Your task to perform on an android device: Open network settings Image 0: 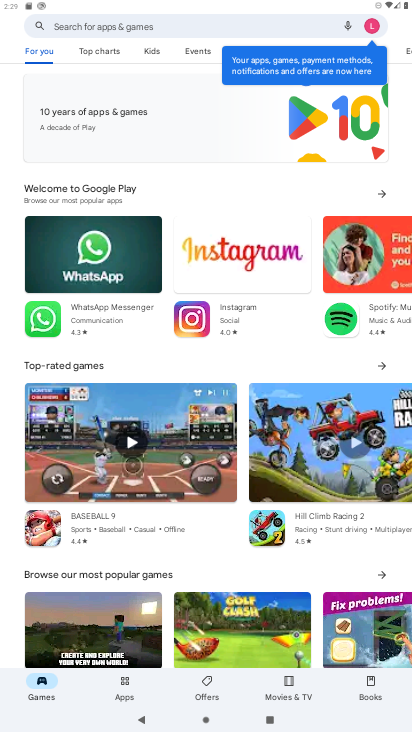
Step 0: press home button
Your task to perform on an android device: Open network settings Image 1: 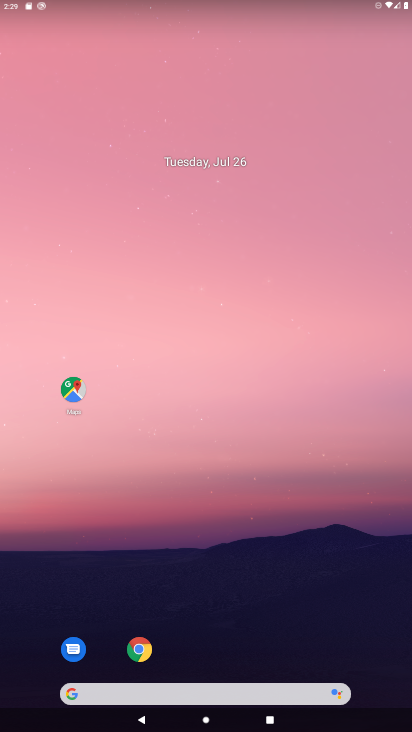
Step 1: drag from (213, 694) to (198, 216)
Your task to perform on an android device: Open network settings Image 2: 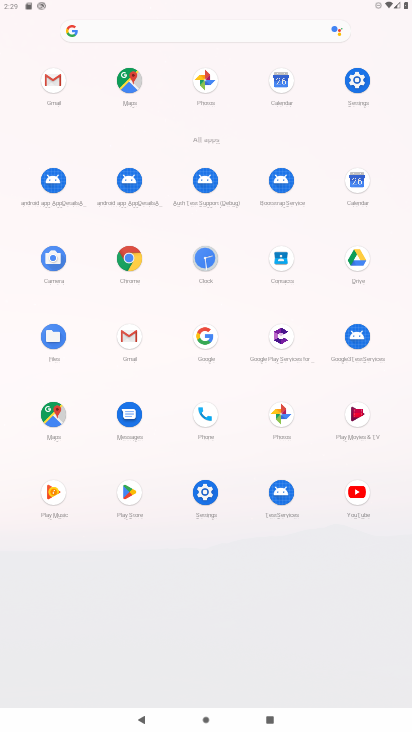
Step 2: click (370, 90)
Your task to perform on an android device: Open network settings Image 3: 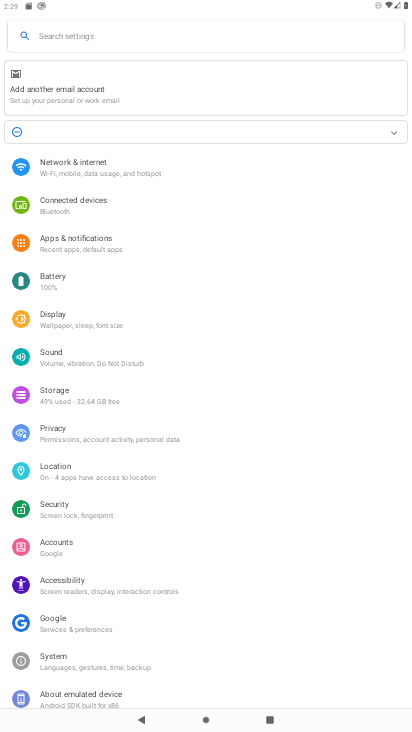
Step 3: click (52, 156)
Your task to perform on an android device: Open network settings Image 4: 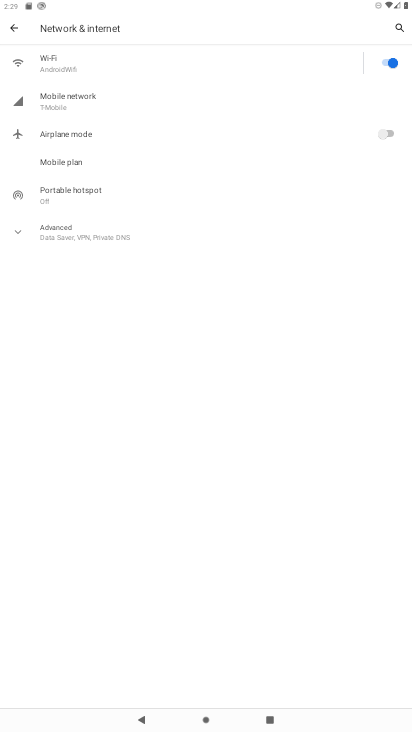
Step 4: task complete